Your task to perform on an android device: change notification settings in the gmail app Image 0: 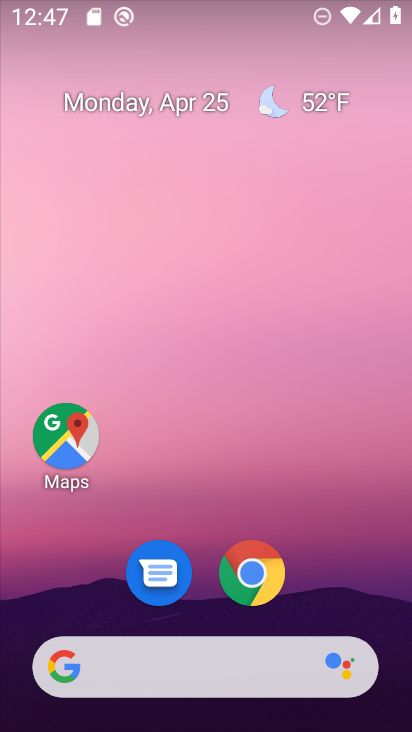
Step 0: drag from (236, 724) to (222, 102)
Your task to perform on an android device: change notification settings in the gmail app Image 1: 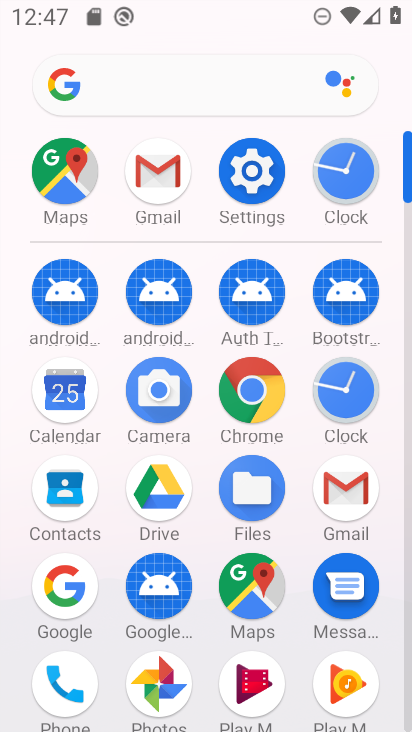
Step 1: click (344, 482)
Your task to perform on an android device: change notification settings in the gmail app Image 2: 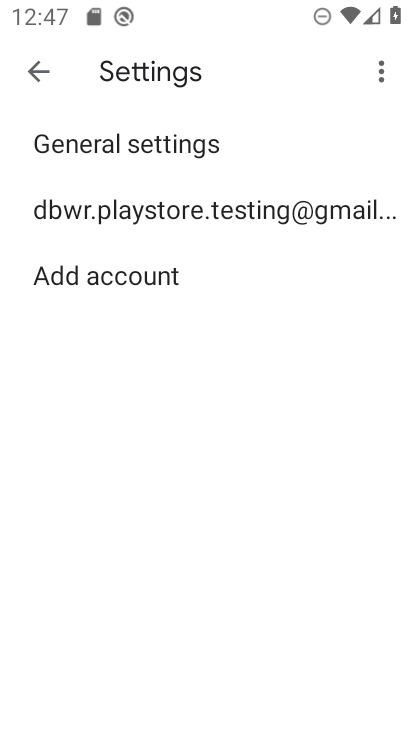
Step 2: click (167, 207)
Your task to perform on an android device: change notification settings in the gmail app Image 3: 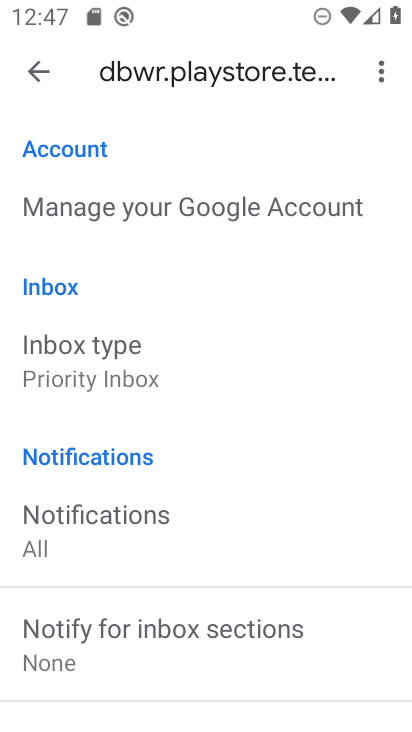
Step 3: click (67, 518)
Your task to perform on an android device: change notification settings in the gmail app Image 4: 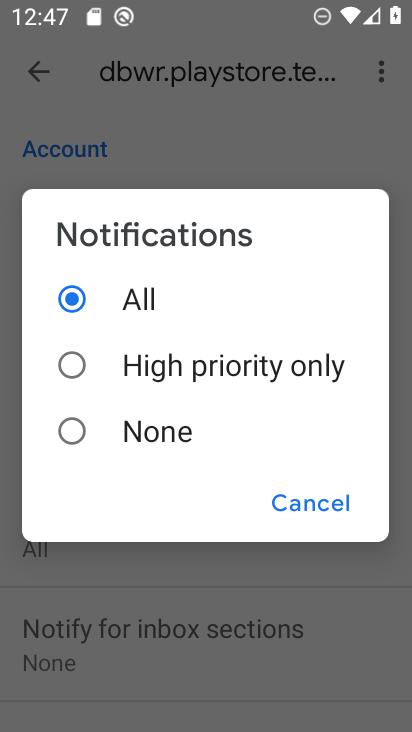
Step 4: click (70, 424)
Your task to perform on an android device: change notification settings in the gmail app Image 5: 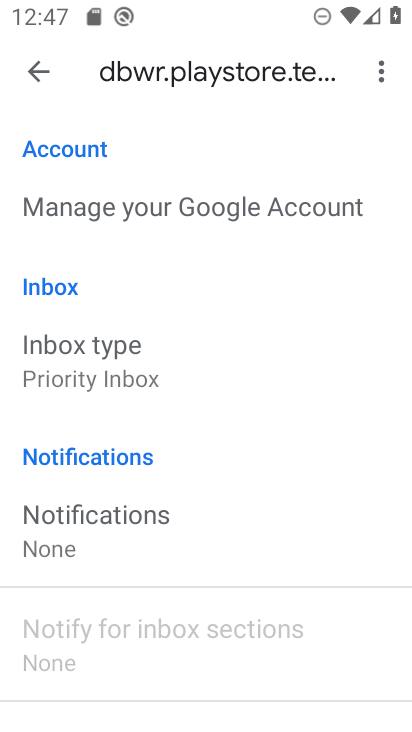
Step 5: task complete